Your task to perform on an android device: Open Youtube and go to "Your channel" Image 0: 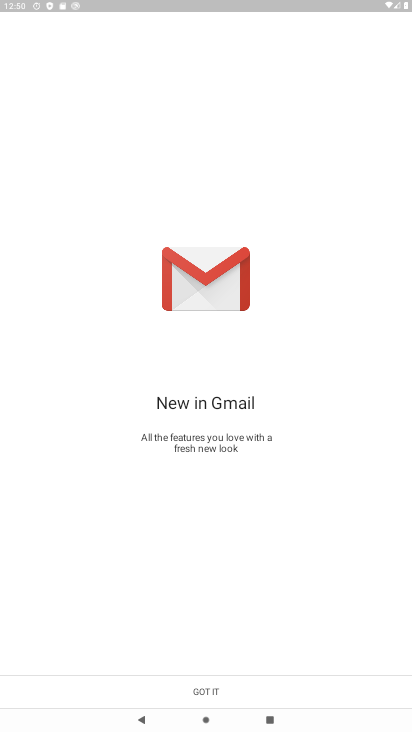
Step 0: press home button
Your task to perform on an android device: Open Youtube and go to "Your channel" Image 1: 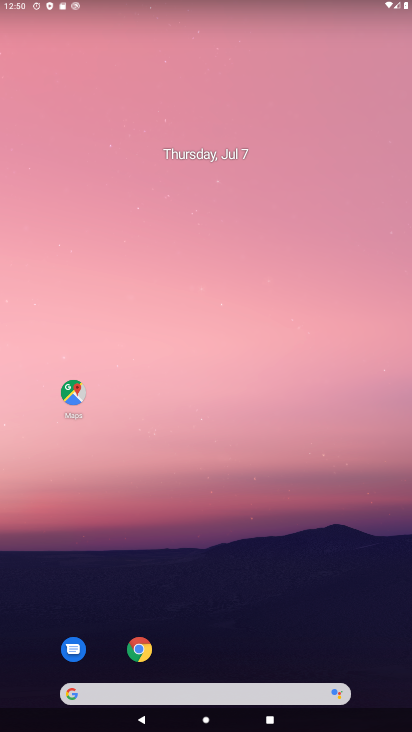
Step 1: drag from (221, 663) to (233, 146)
Your task to perform on an android device: Open Youtube and go to "Your channel" Image 2: 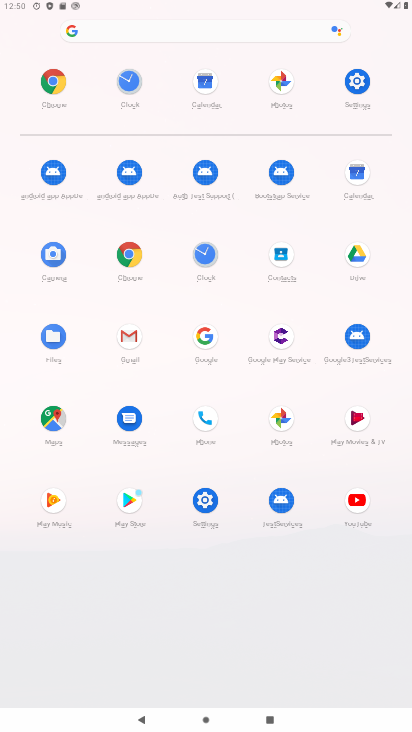
Step 2: click (354, 518)
Your task to perform on an android device: Open Youtube and go to "Your channel" Image 3: 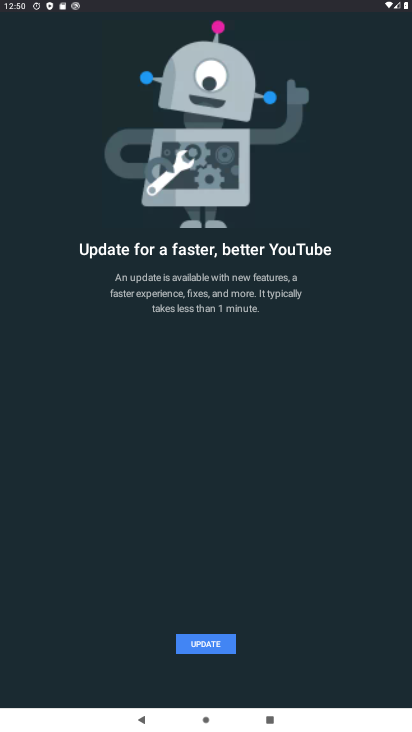
Step 3: click (221, 649)
Your task to perform on an android device: Open Youtube and go to "Your channel" Image 4: 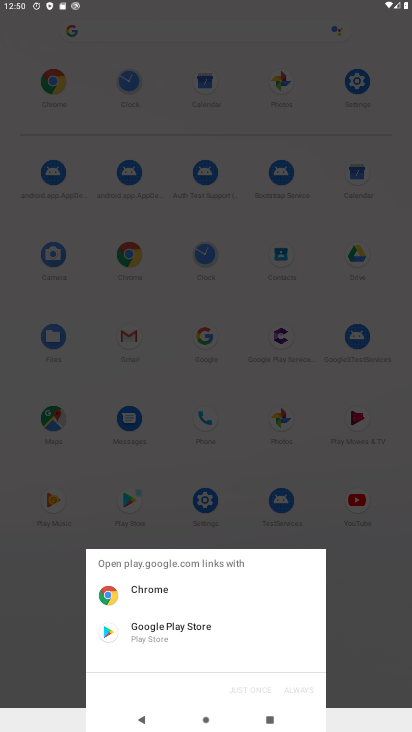
Step 4: click (204, 641)
Your task to perform on an android device: Open Youtube and go to "Your channel" Image 5: 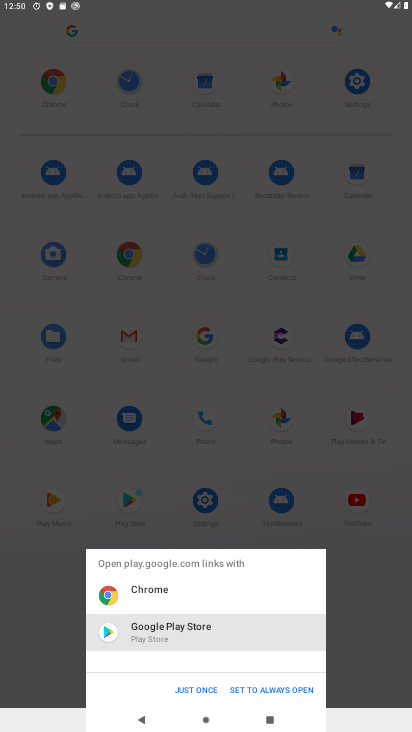
Step 5: click (188, 686)
Your task to perform on an android device: Open Youtube and go to "Your channel" Image 6: 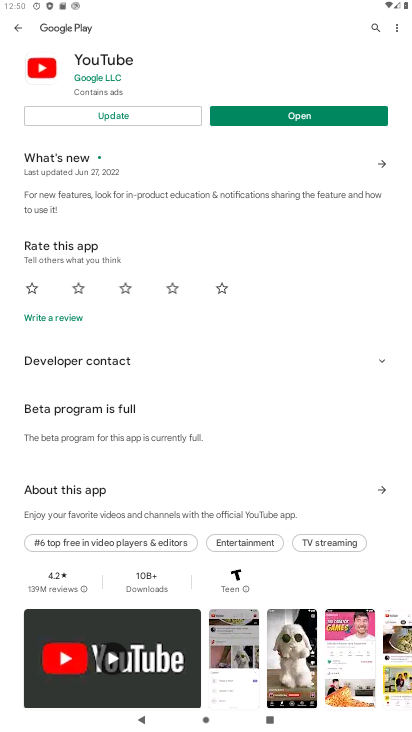
Step 6: click (168, 117)
Your task to perform on an android device: Open Youtube and go to "Your channel" Image 7: 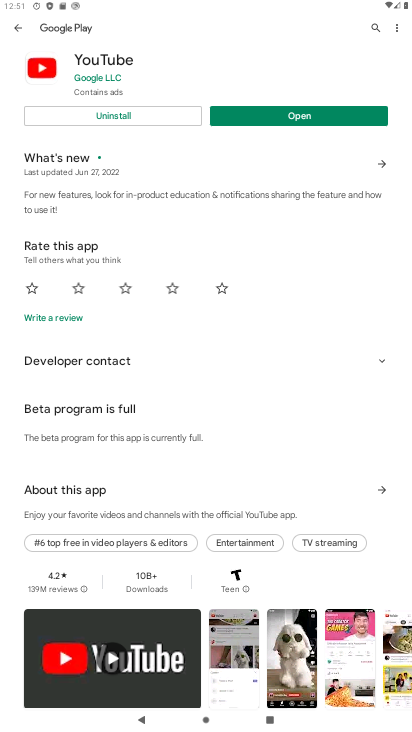
Step 7: click (244, 108)
Your task to perform on an android device: Open Youtube and go to "Your channel" Image 8: 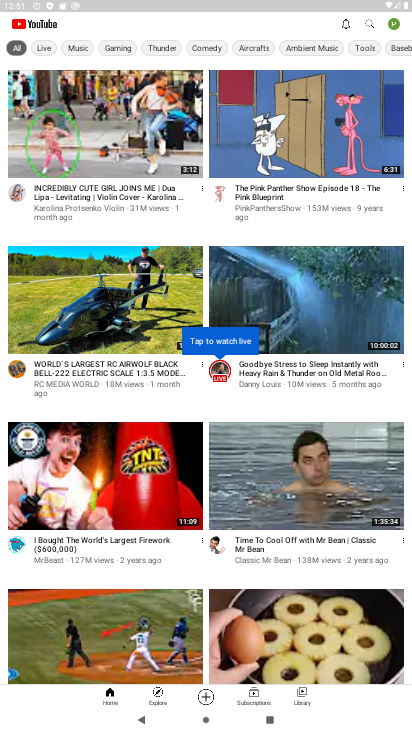
Step 8: click (395, 26)
Your task to perform on an android device: Open Youtube and go to "Your channel" Image 9: 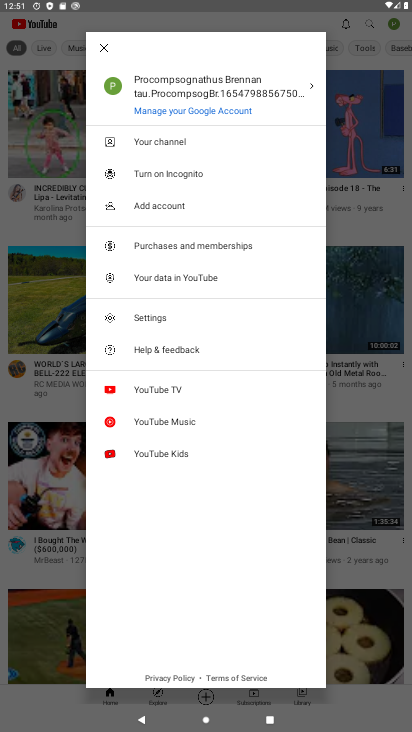
Step 9: click (178, 135)
Your task to perform on an android device: Open Youtube and go to "Your channel" Image 10: 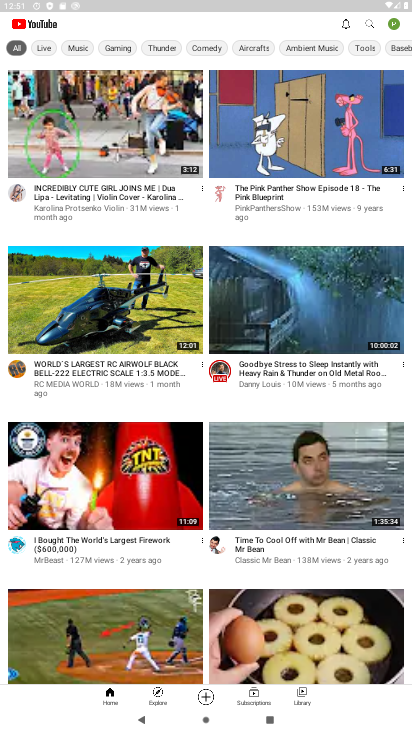
Step 10: click (396, 25)
Your task to perform on an android device: Open Youtube and go to "Your channel" Image 11: 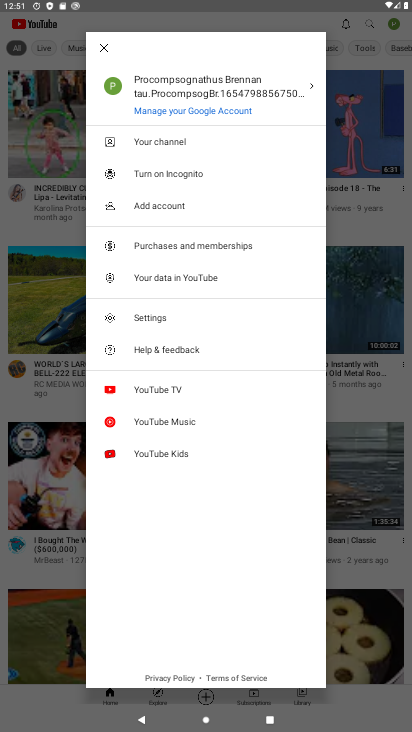
Step 11: click (157, 146)
Your task to perform on an android device: Open Youtube and go to "Your channel" Image 12: 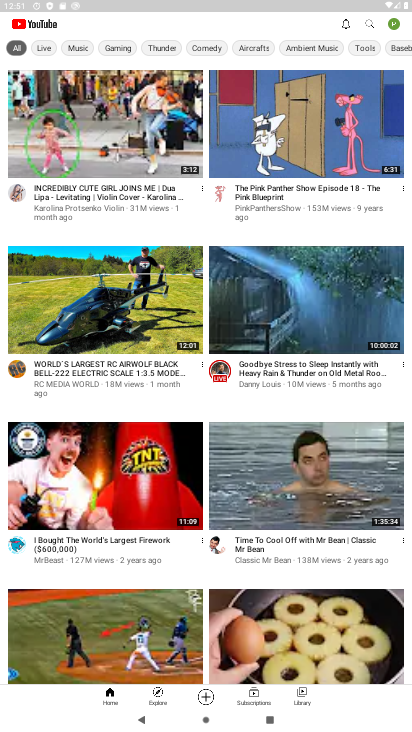
Step 12: task complete